Your task to perform on an android device: turn off smart reply in the gmail app Image 0: 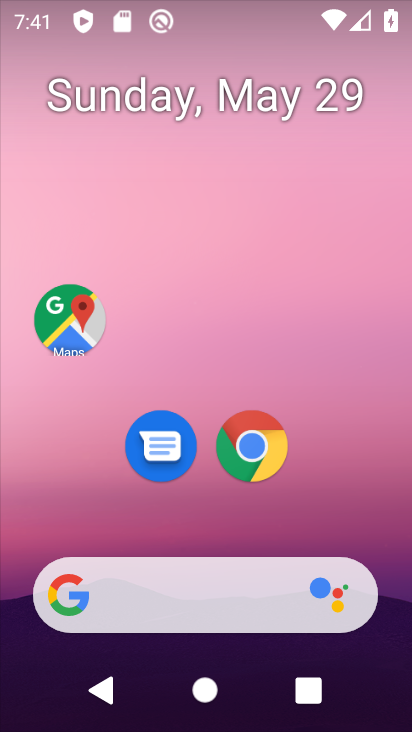
Step 0: drag from (178, 551) to (267, 20)
Your task to perform on an android device: turn off smart reply in the gmail app Image 1: 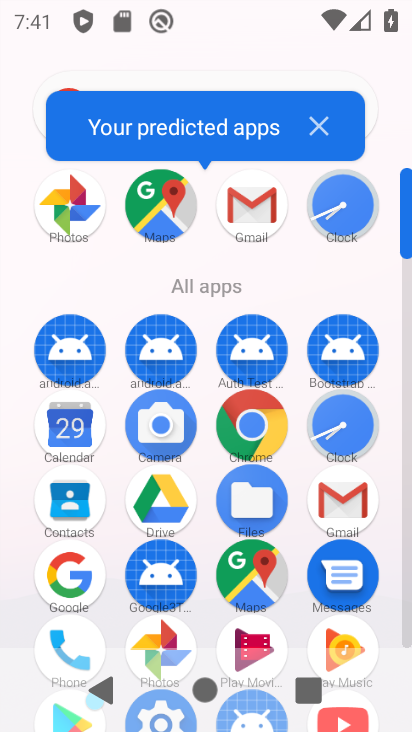
Step 1: click (352, 486)
Your task to perform on an android device: turn off smart reply in the gmail app Image 2: 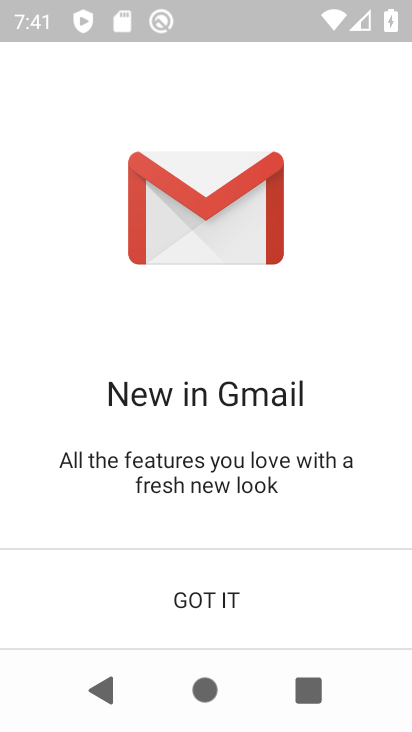
Step 2: click (207, 613)
Your task to perform on an android device: turn off smart reply in the gmail app Image 3: 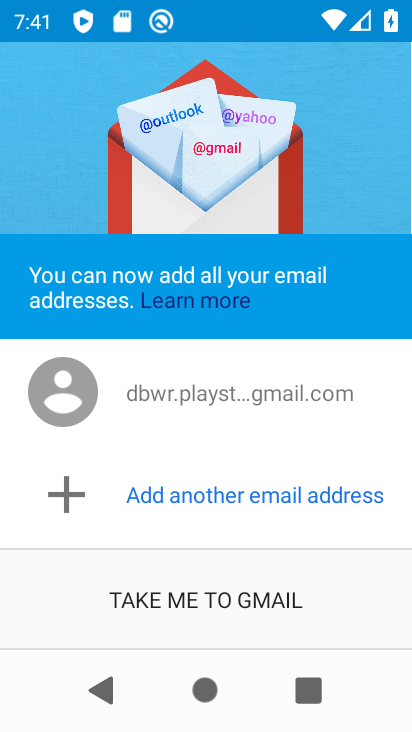
Step 3: click (206, 594)
Your task to perform on an android device: turn off smart reply in the gmail app Image 4: 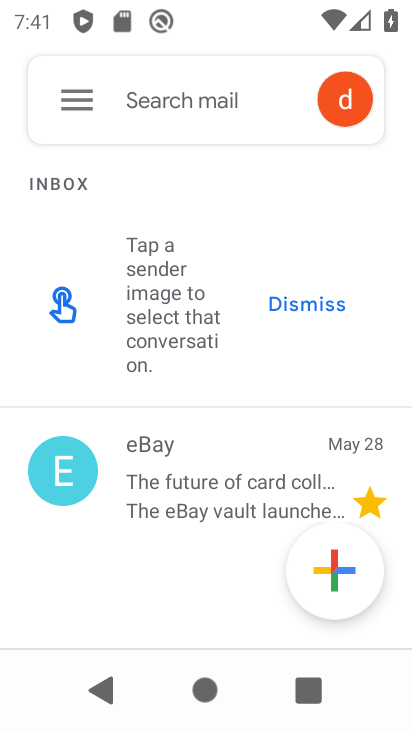
Step 4: drag from (219, 535) to (261, 228)
Your task to perform on an android device: turn off smart reply in the gmail app Image 5: 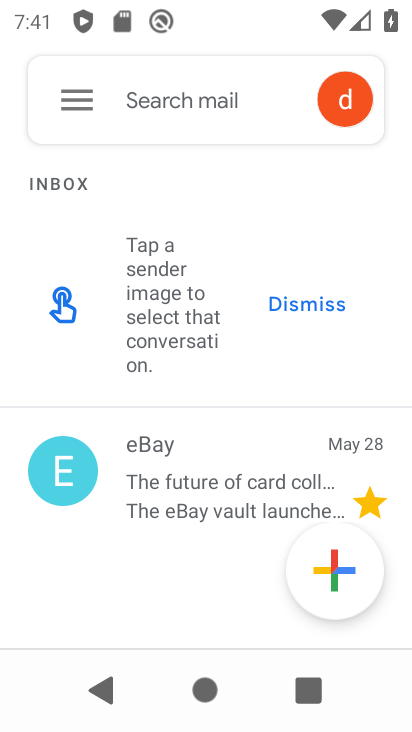
Step 5: click (69, 95)
Your task to perform on an android device: turn off smart reply in the gmail app Image 6: 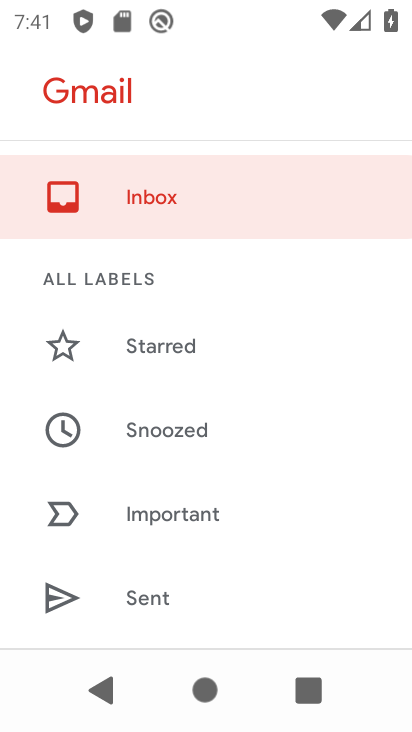
Step 6: drag from (182, 571) to (234, 84)
Your task to perform on an android device: turn off smart reply in the gmail app Image 7: 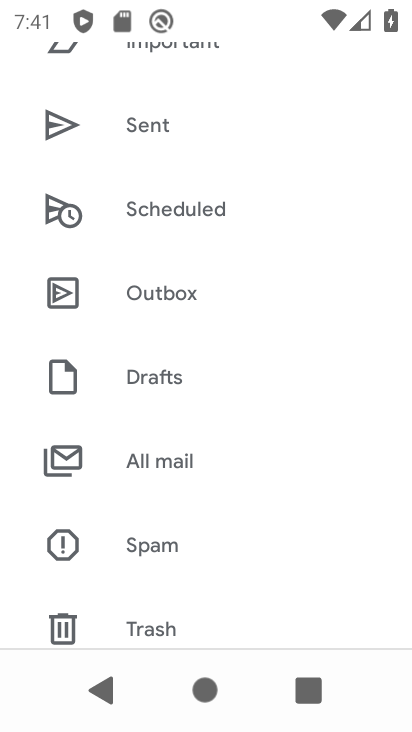
Step 7: drag from (235, 428) to (304, 78)
Your task to perform on an android device: turn off smart reply in the gmail app Image 8: 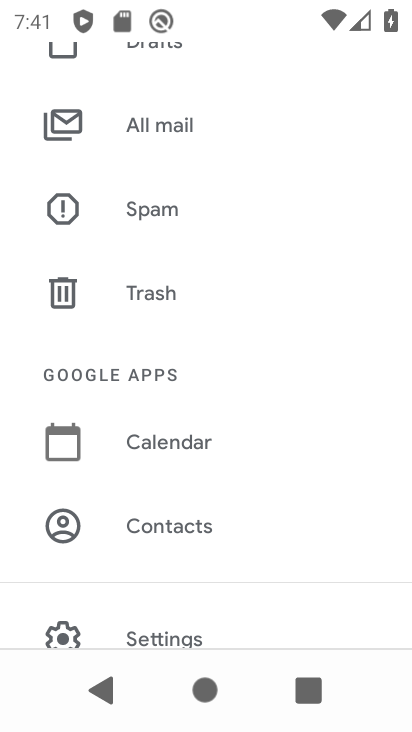
Step 8: click (179, 627)
Your task to perform on an android device: turn off smart reply in the gmail app Image 9: 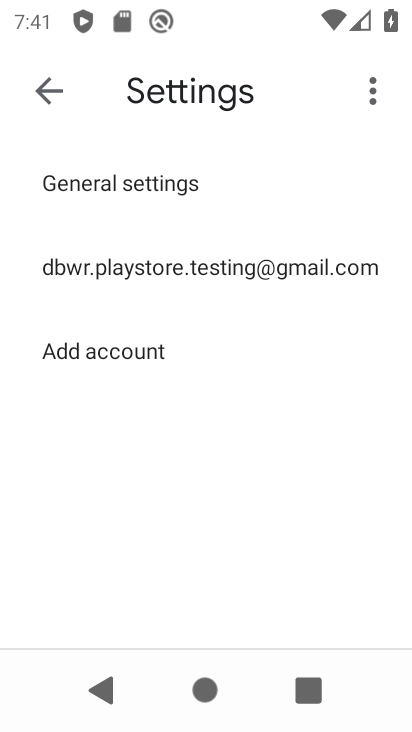
Step 9: click (272, 289)
Your task to perform on an android device: turn off smart reply in the gmail app Image 10: 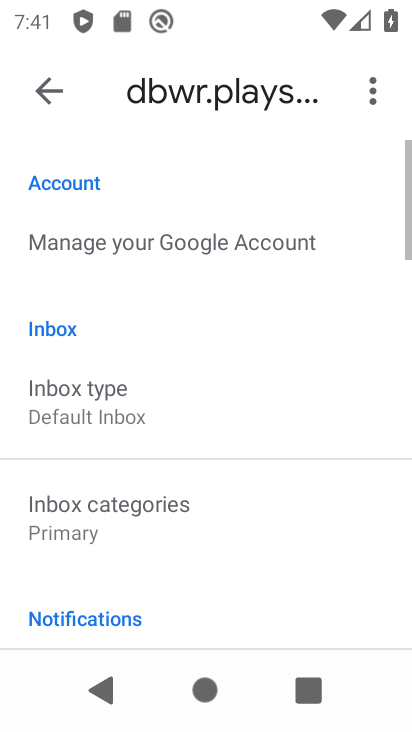
Step 10: drag from (225, 593) to (324, 55)
Your task to perform on an android device: turn off smart reply in the gmail app Image 11: 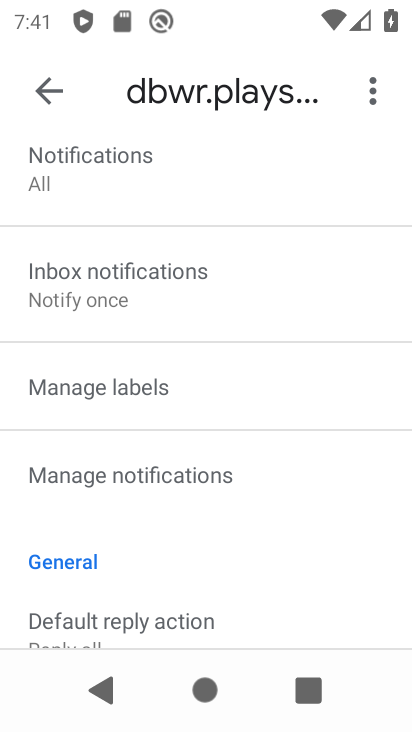
Step 11: drag from (213, 592) to (244, 16)
Your task to perform on an android device: turn off smart reply in the gmail app Image 12: 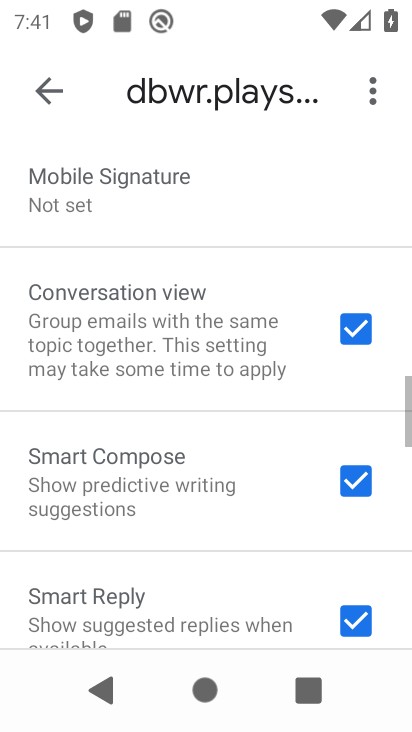
Step 12: drag from (229, 500) to (231, 207)
Your task to perform on an android device: turn off smart reply in the gmail app Image 13: 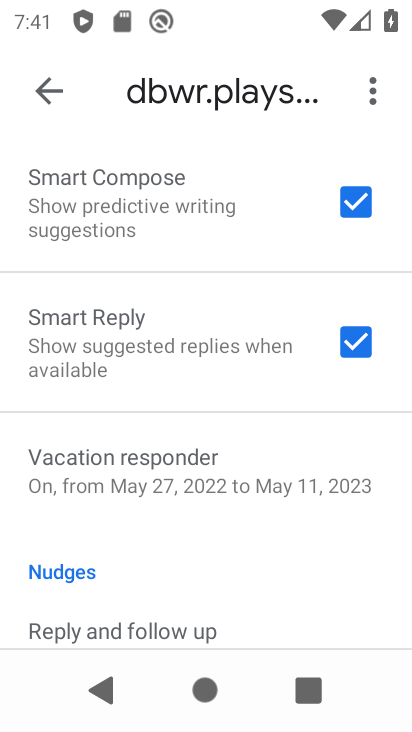
Step 13: click (357, 339)
Your task to perform on an android device: turn off smart reply in the gmail app Image 14: 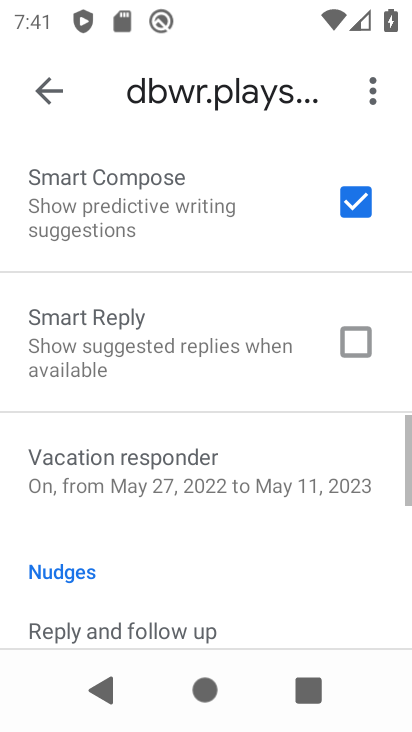
Step 14: task complete